Your task to perform on an android device: change timer sound Image 0: 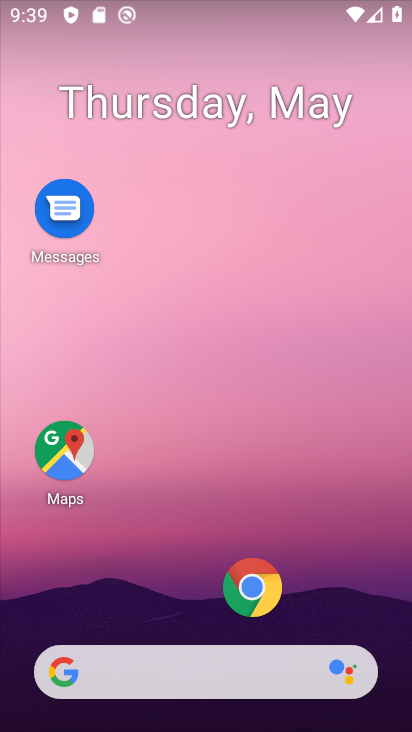
Step 0: drag from (187, 628) to (194, 14)
Your task to perform on an android device: change timer sound Image 1: 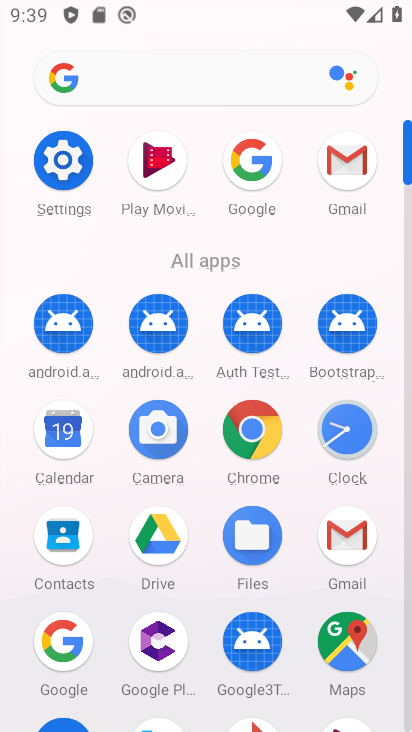
Step 1: click (315, 447)
Your task to perform on an android device: change timer sound Image 2: 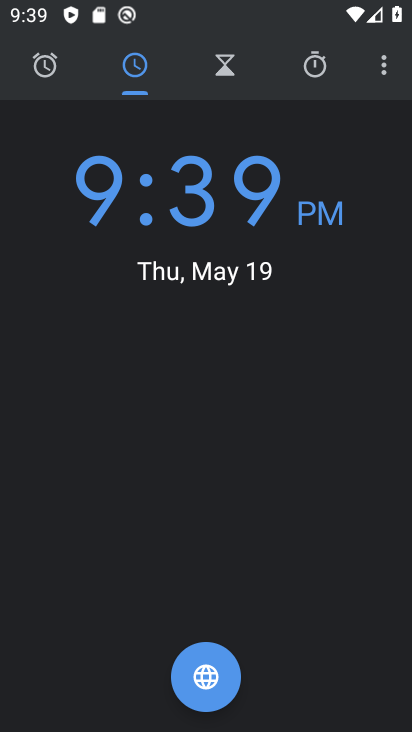
Step 2: click (388, 64)
Your task to perform on an android device: change timer sound Image 3: 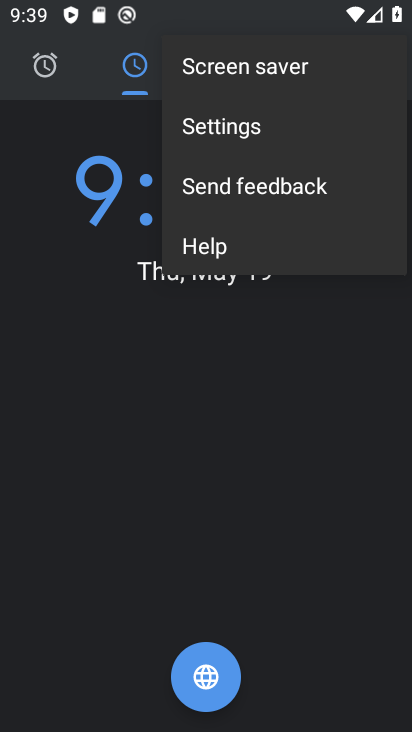
Step 3: click (271, 113)
Your task to perform on an android device: change timer sound Image 4: 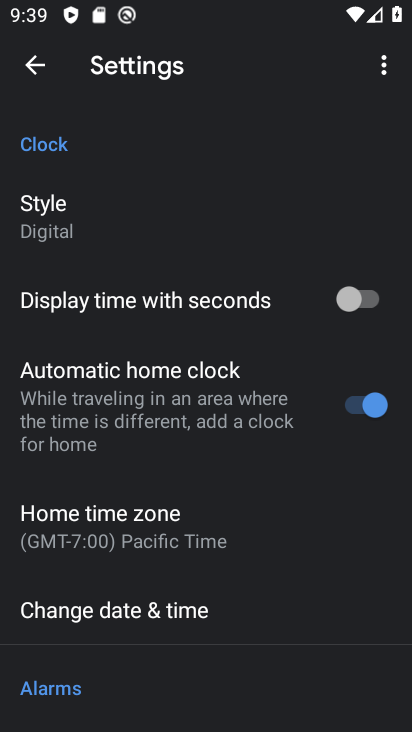
Step 4: drag from (127, 590) to (129, 145)
Your task to perform on an android device: change timer sound Image 5: 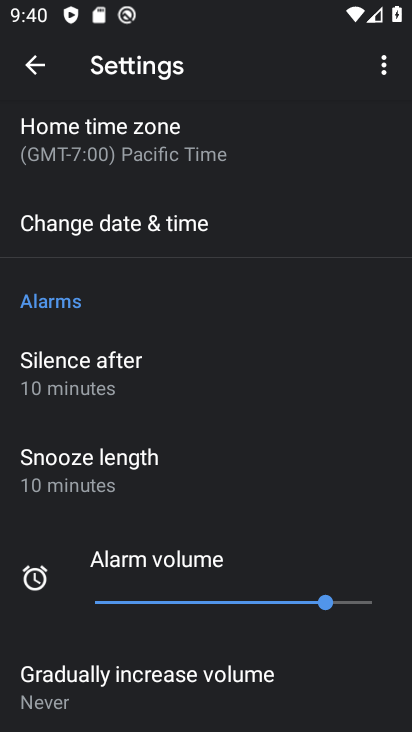
Step 5: drag from (152, 500) to (154, 135)
Your task to perform on an android device: change timer sound Image 6: 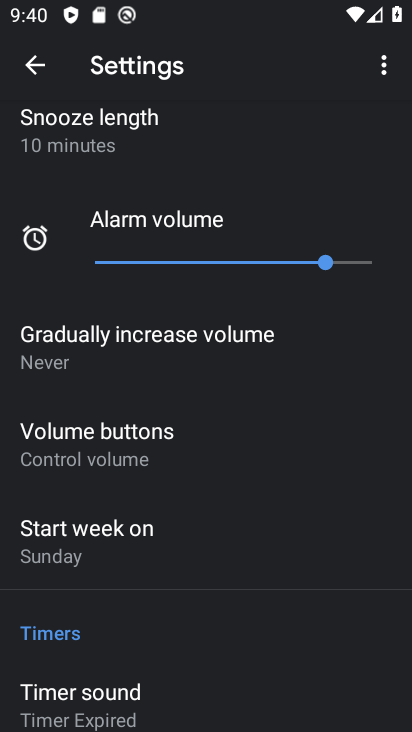
Step 6: click (113, 689)
Your task to perform on an android device: change timer sound Image 7: 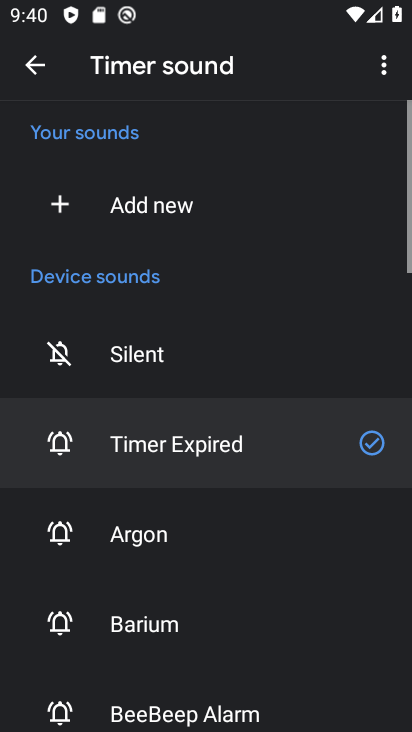
Step 7: click (189, 514)
Your task to perform on an android device: change timer sound Image 8: 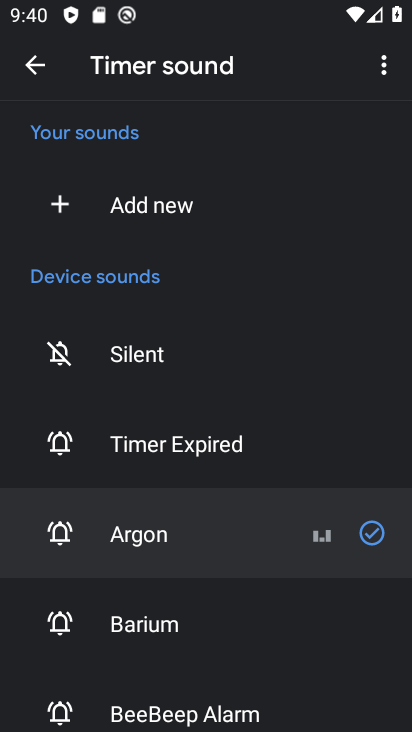
Step 8: task complete